Your task to perform on an android device: turn on wifi Image 0: 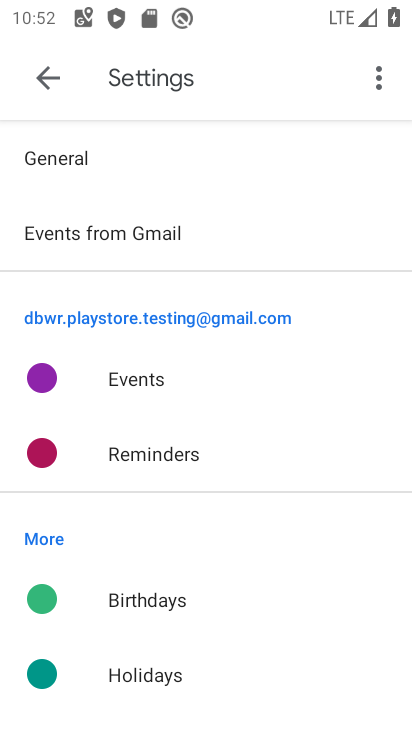
Step 0: press home button
Your task to perform on an android device: turn on wifi Image 1: 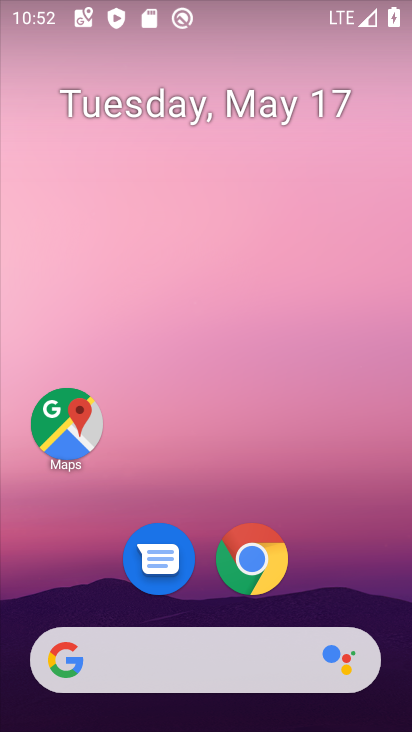
Step 1: drag from (223, 717) to (242, 44)
Your task to perform on an android device: turn on wifi Image 2: 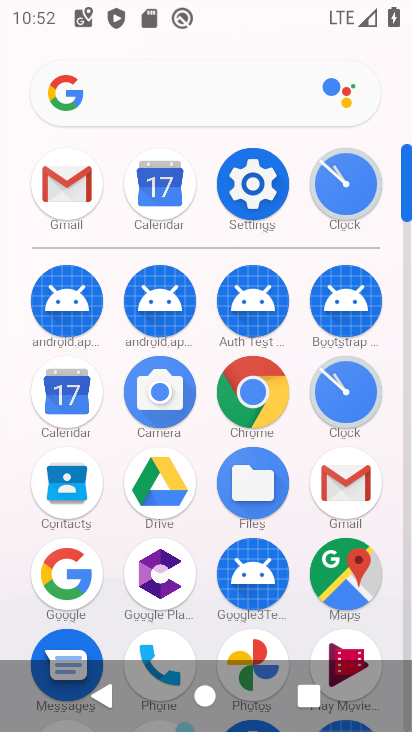
Step 2: click (266, 188)
Your task to perform on an android device: turn on wifi Image 3: 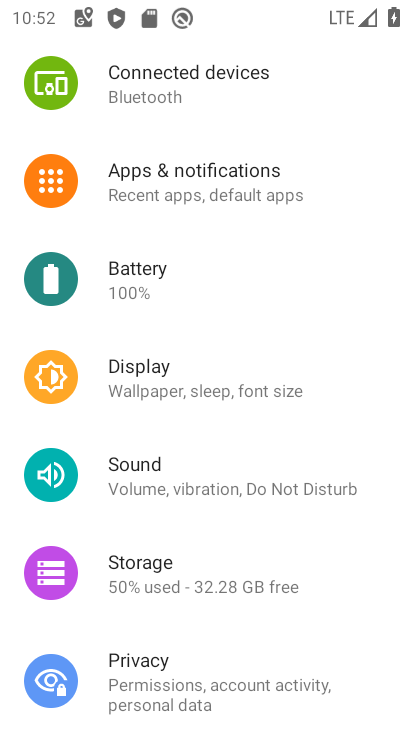
Step 3: drag from (313, 126) to (296, 593)
Your task to perform on an android device: turn on wifi Image 4: 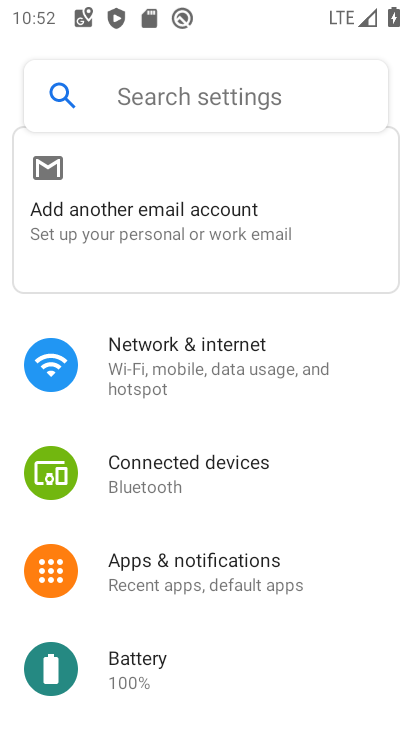
Step 4: click (266, 368)
Your task to perform on an android device: turn on wifi Image 5: 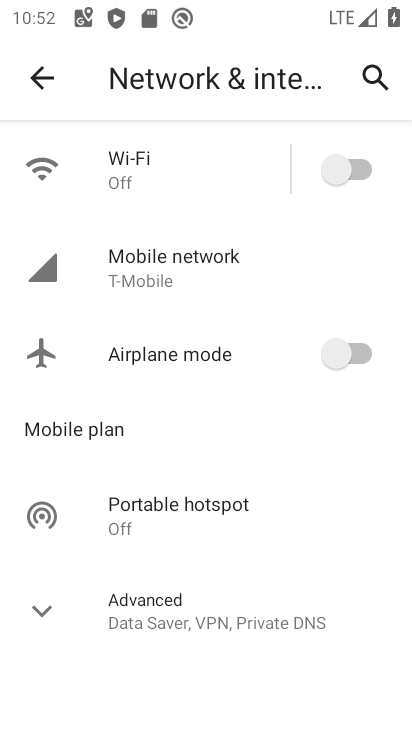
Step 5: click (351, 170)
Your task to perform on an android device: turn on wifi Image 6: 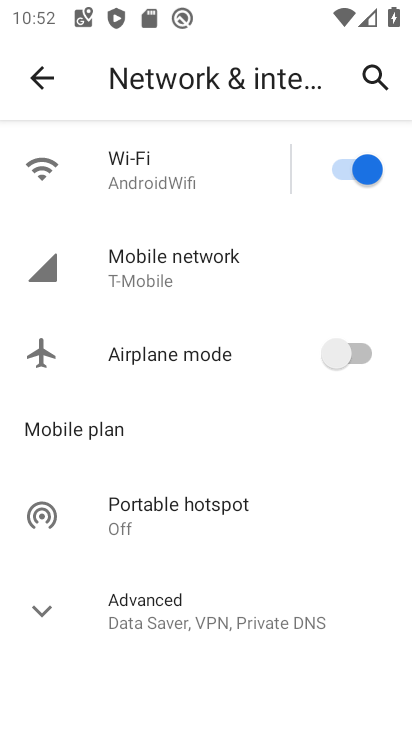
Step 6: task complete